Your task to perform on an android device: Open accessibility settings Image 0: 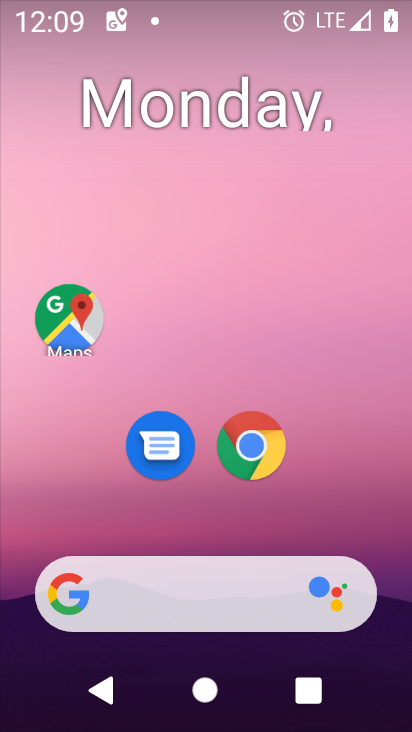
Step 0: drag from (185, 514) to (190, 189)
Your task to perform on an android device: Open accessibility settings Image 1: 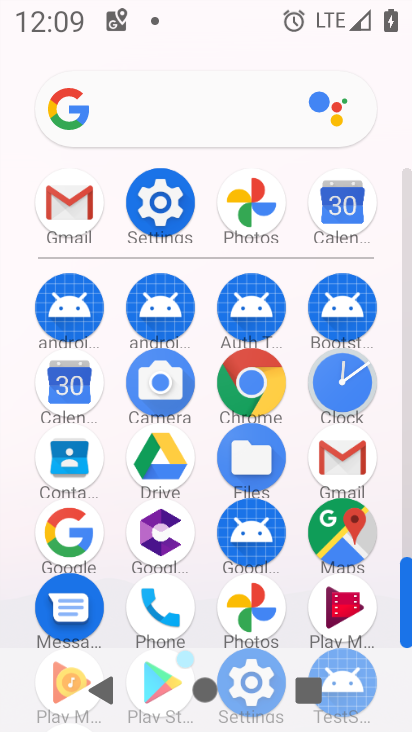
Step 1: click (158, 210)
Your task to perform on an android device: Open accessibility settings Image 2: 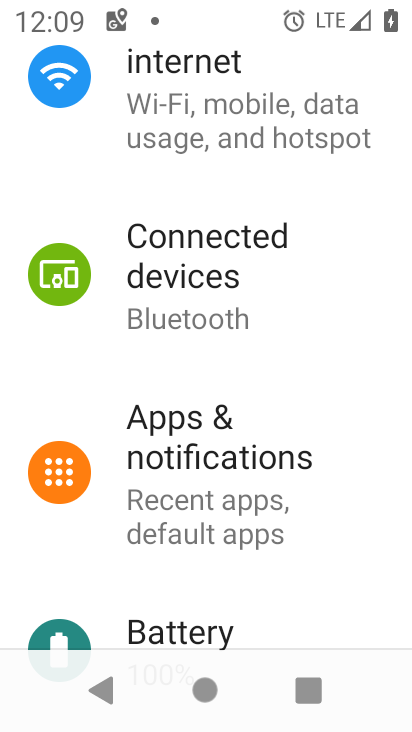
Step 2: drag from (234, 491) to (254, 219)
Your task to perform on an android device: Open accessibility settings Image 3: 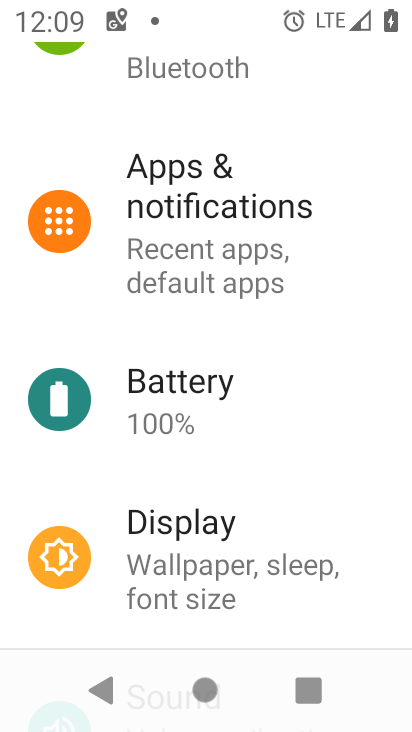
Step 3: drag from (154, 510) to (245, 132)
Your task to perform on an android device: Open accessibility settings Image 4: 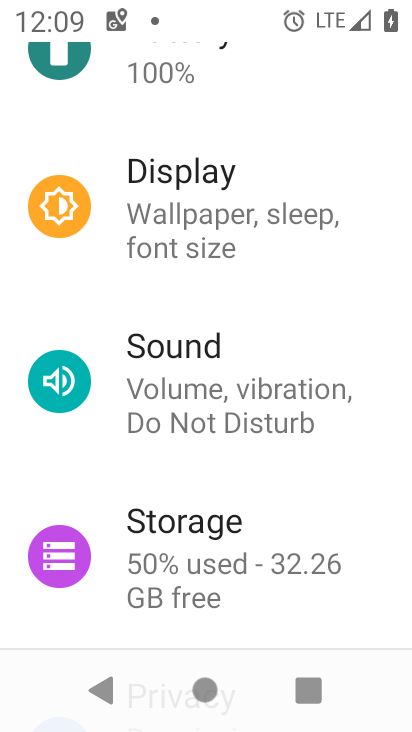
Step 4: drag from (247, 515) to (323, 128)
Your task to perform on an android device: Open accessibility settings Image 5: 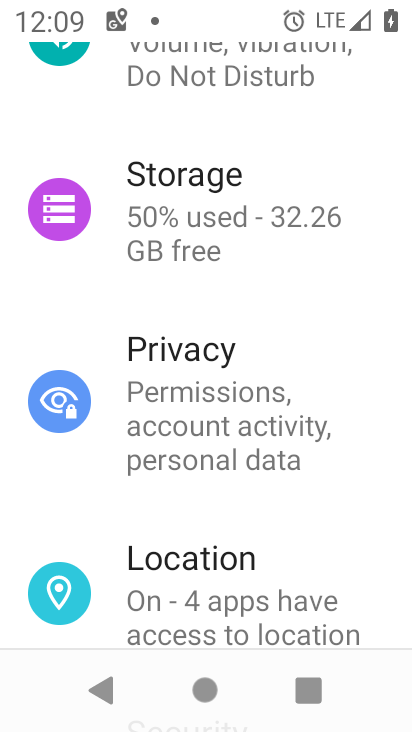
Step 5: drag from (244, 474) to (328, 142)
Your task to perform on an android device: Open accessibility settings Image 6: 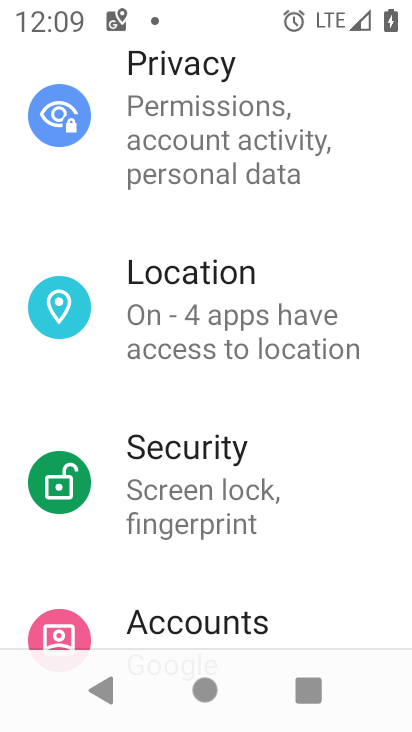
Step 6: drag from (280, 527) to (371, 73)
Your task to perform on an android device: Open accessibility settings Image 7: 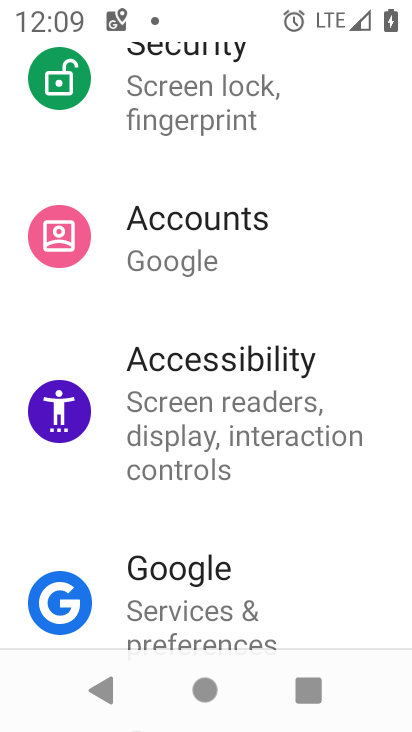
Step 7: click (254, 422)
Your task to perform on an android device: Open accessibility settings Image 8: 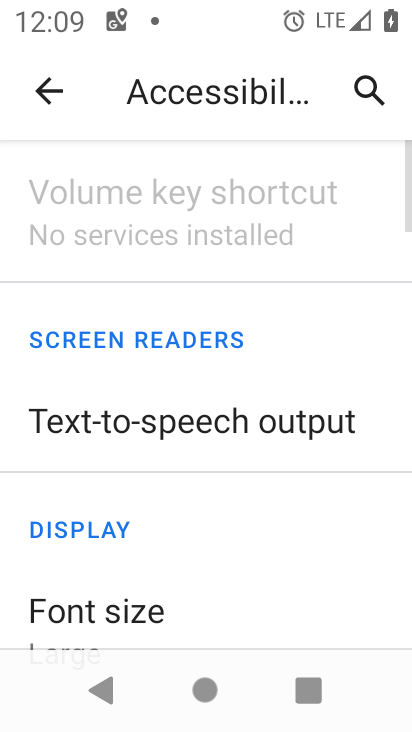
Step 8: task complete